Your task to perform on an android device: delete a single message in the gmail app Image 0: 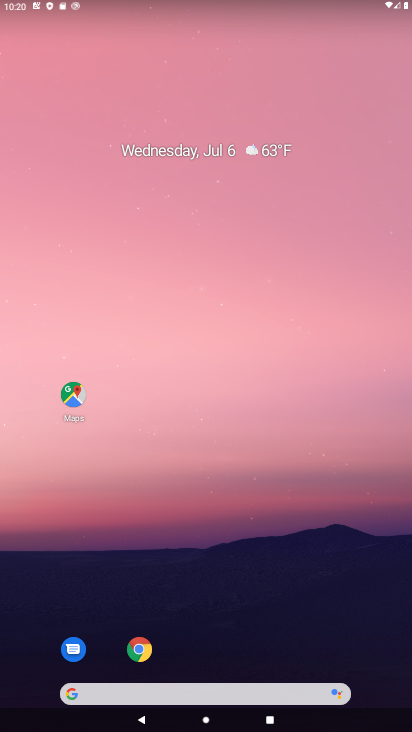
Step 0: drag from (279, 595) to (284, 22)
Your task to perform on an android device: delete a single message in the gmail app Image 1: 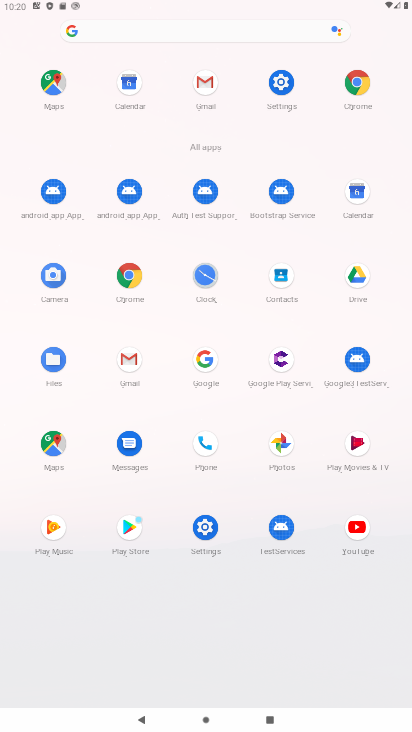
Step 1: click (203, 96)
Your task to perform on an android device: delete a single message in the gmail app Image 2: 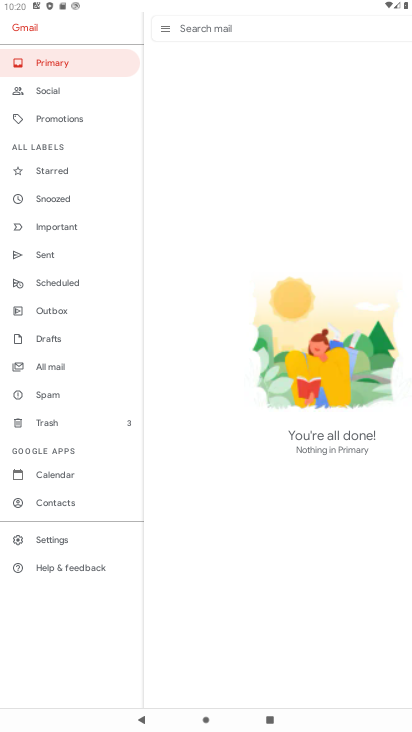
Step 2: click (41, 368)
Your task to perform on an android device: delete a single message in the gmail app Image 3: 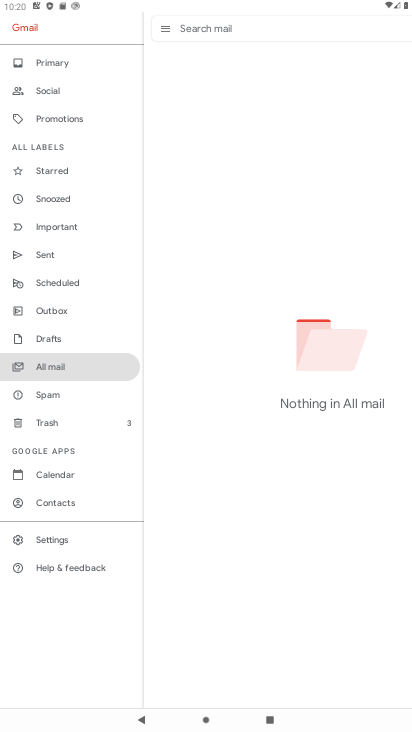
Step 3: task complete